Your task to perform on an android device: Go to eBay Image 0: 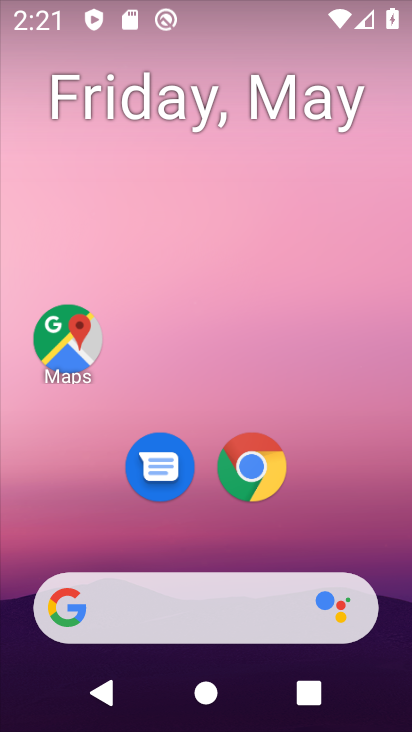
Step 0: click (245, 476)
Your task to perform on an android device: Go to eBay Image 1: 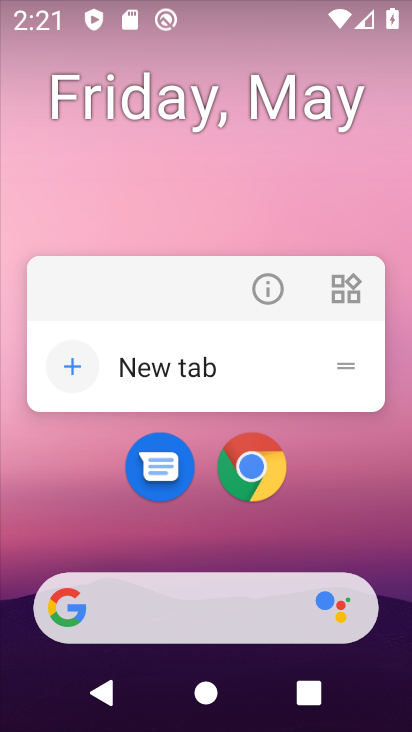
Step 1: click (246, 471)
Your task to perform on an android device: Go to eBay Image 2: 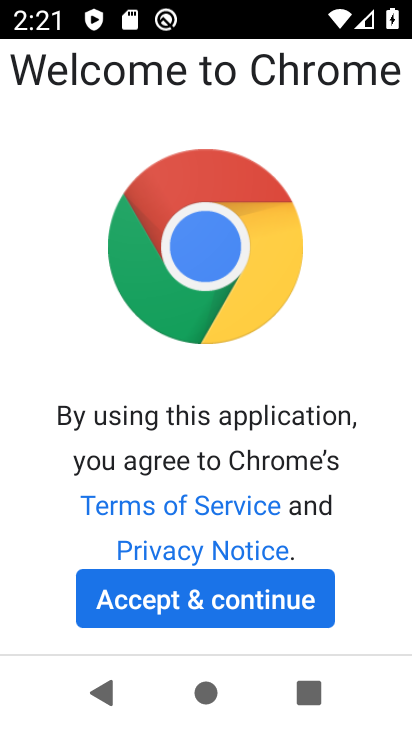
Step 2: click (227, 602)
Your task to perform on an android device: Go to eBay Image 3: 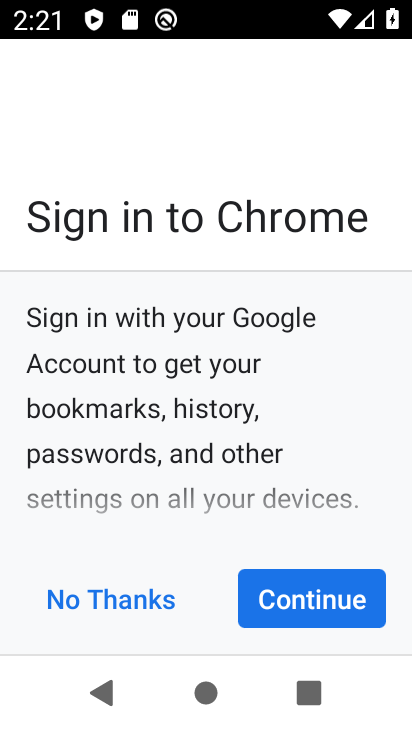
Step 3: click (298, 594)
Your task to perform on an android device: Go to eBay Image 4: 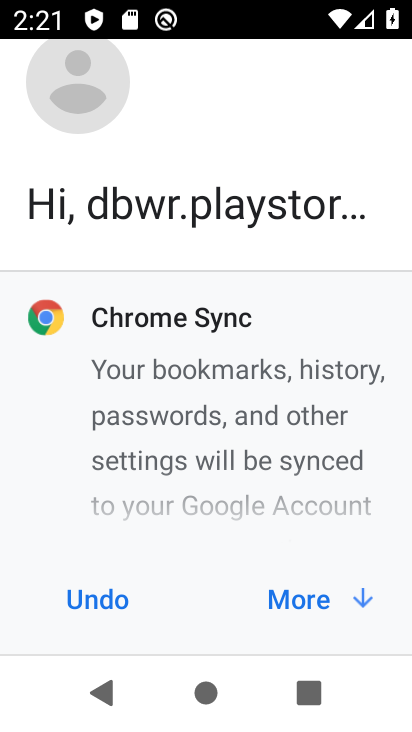
Step 4: click (298, 595)
Your task to perform on an android device: Go to eBay Image 5: 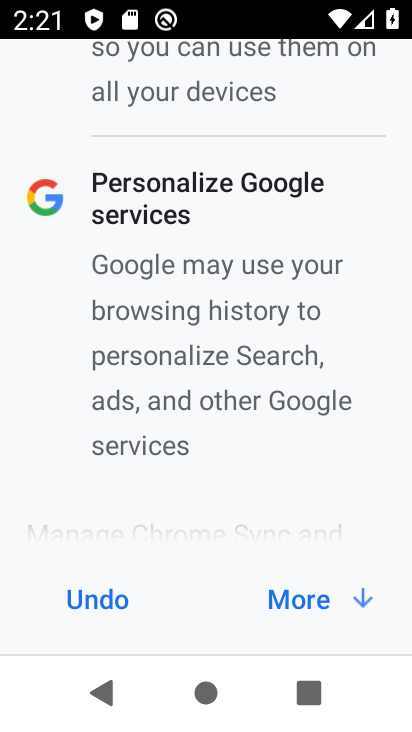
Step 5: click (296, 595)
Your task to perform on an android device: Go to eBay Image 6: 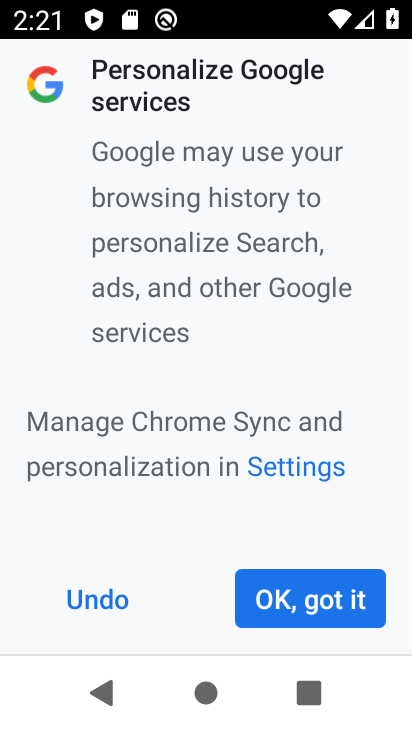
Step 6: click (296, 595)
Your task to perform on an android device: Go to eBay Image 7: 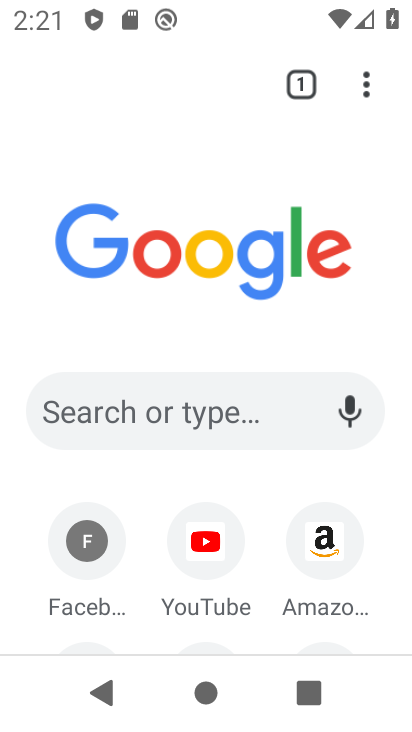
Step 7: drag from (255, 612) to (248, 204)
Your task to perform on an android device: Go to eBay Image 8: 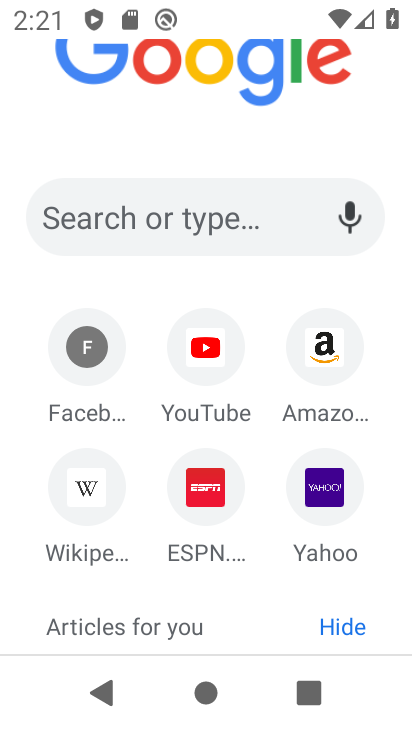
Step 8: click (116, 225)
Your task to perform on an android device: Go to eBay Image 9: 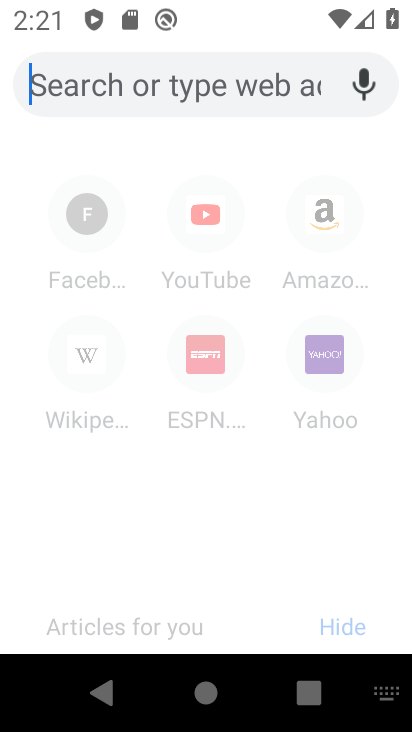
Step 9: type "ebay"
Your task to perform on an android device: Go to eBay Image 10: 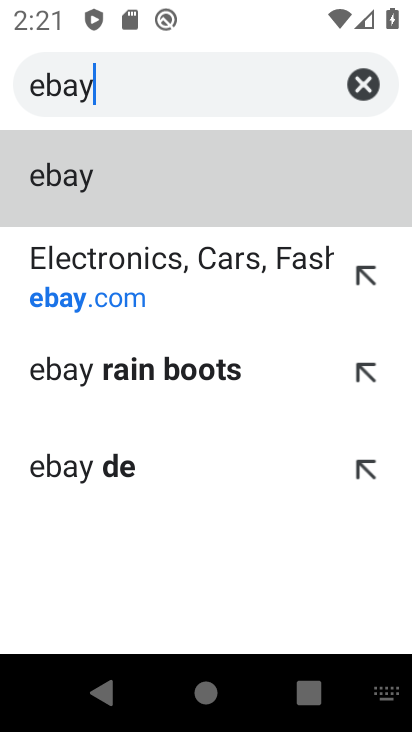
Step 10: click (89, 184)
Your task to perform on an android device: Go to eBay Image 11: 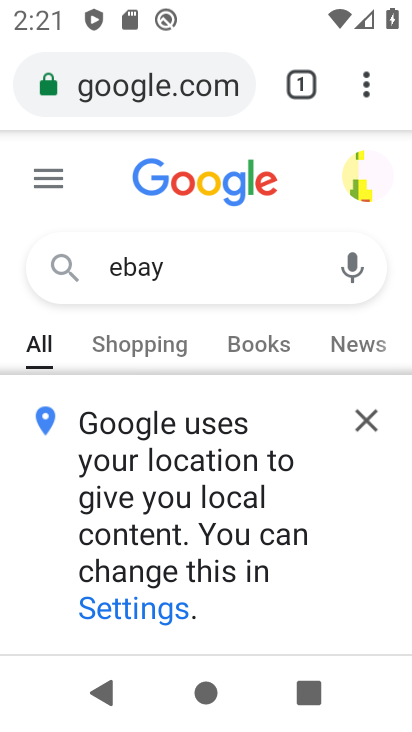
Step 11: click (363, 427)
Your task to perform on an android device: Go to eBay Image 12: 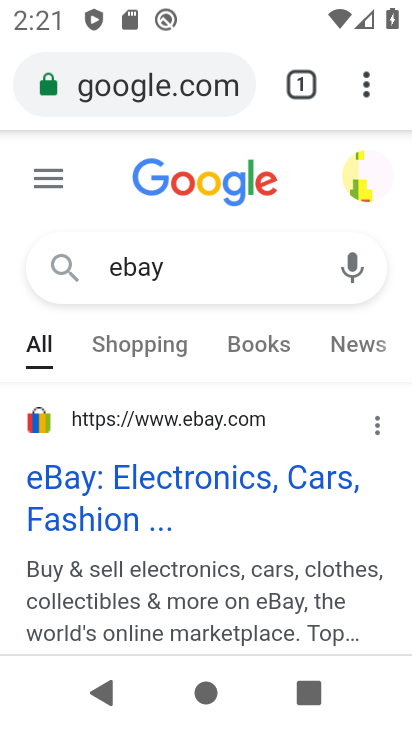
Step 12: drag from (174, 645) to (197, 331)
Your task to perform on an android device: Go to eBay Image 13: 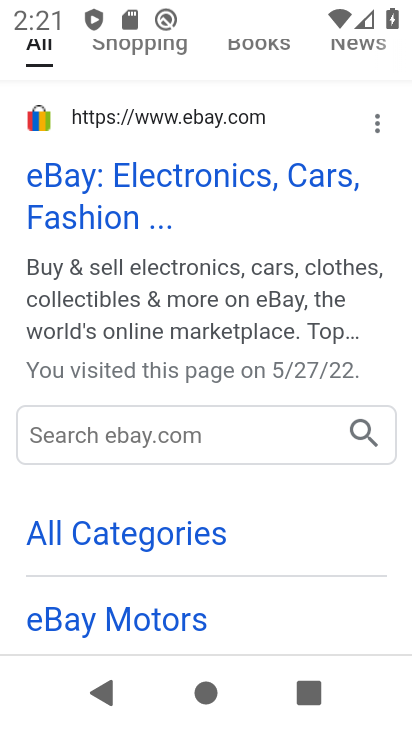
Step 13: click (187, 192)
Your task to perform on an android device: Go to eBay Image 14: 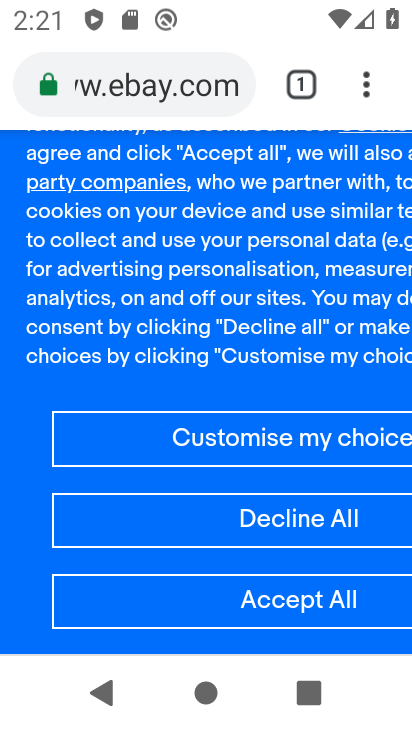
Step 14: task complete